Your task to perform on an android device: Search for sushi restaurants on Maps Image 0: 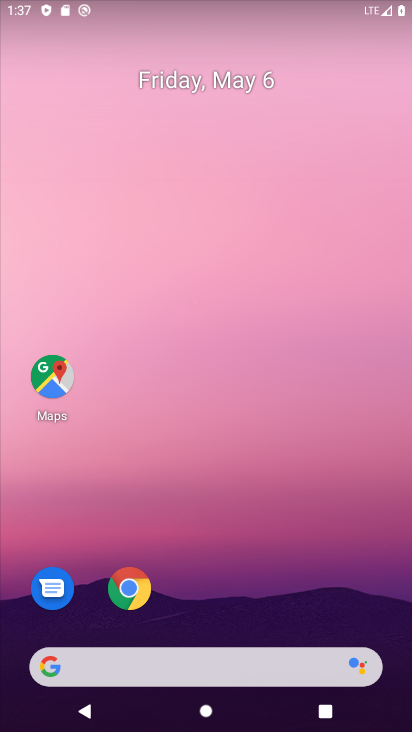
Step 0: drag from (319, 595) to (351, 43)
Your task to perform on an android device: Search for sushi restaurants on Maps Image 1: 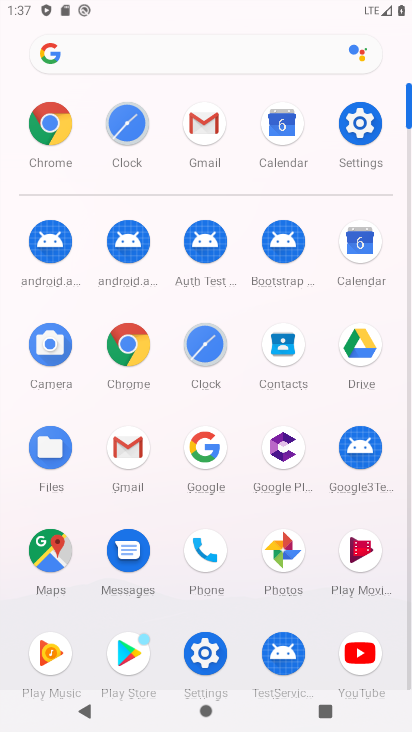
Step 1: click (53, 548)
Your task to perform on an android device: Search for sushi restaurants on Maps Image 2: 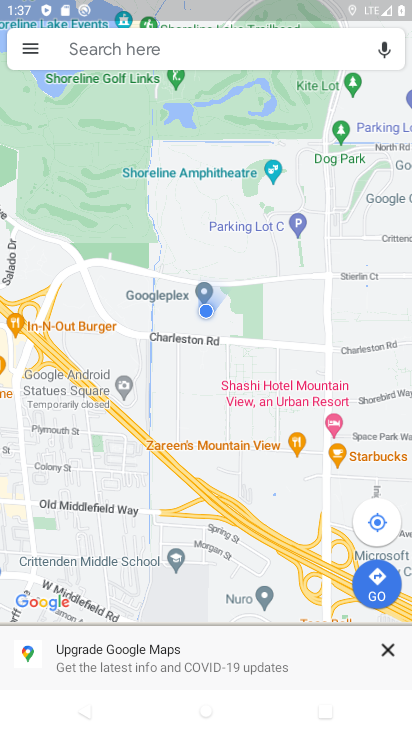
Step 2: click (207, 44)
Your task to perform on an android device: Search for sushi restaurants on Maps Image 3: 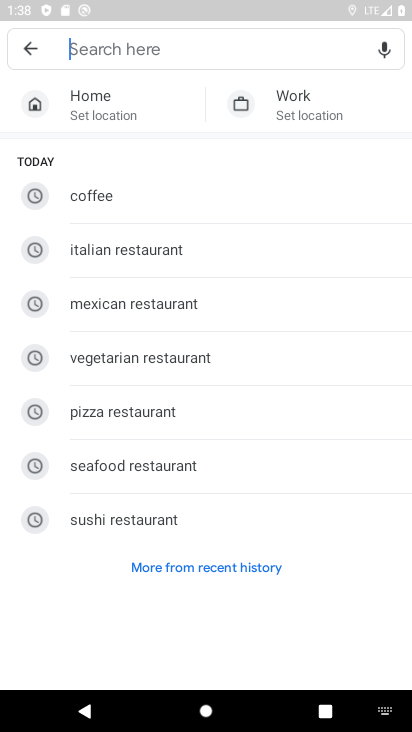
Step 3: click (134, 527)
Your task to perform on an android device: Search for sushi restaurants on Maps Image 4: 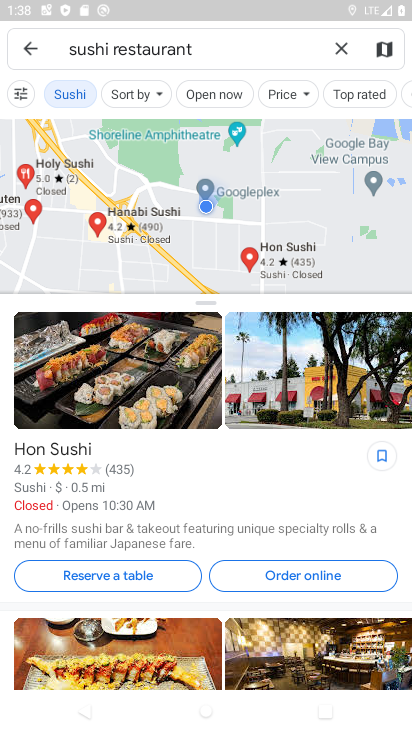
Step 4: task complete